Your task to perform on an android device: turn smart compose on in the gmail app Image 0: 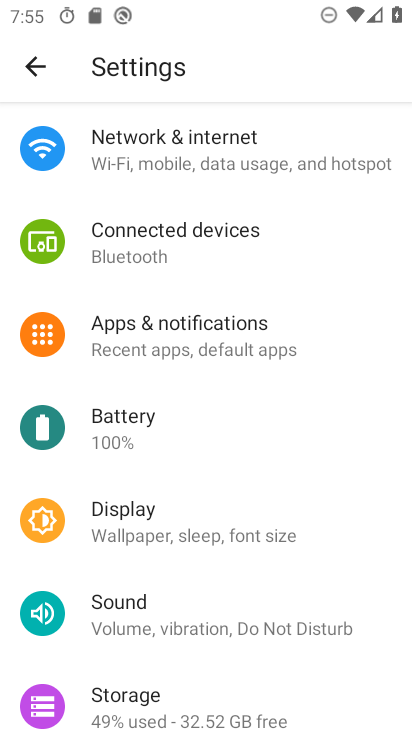
Step 0: press home button
Your task to perform on an android device: turn smart compose on in the gmail app Image 1: 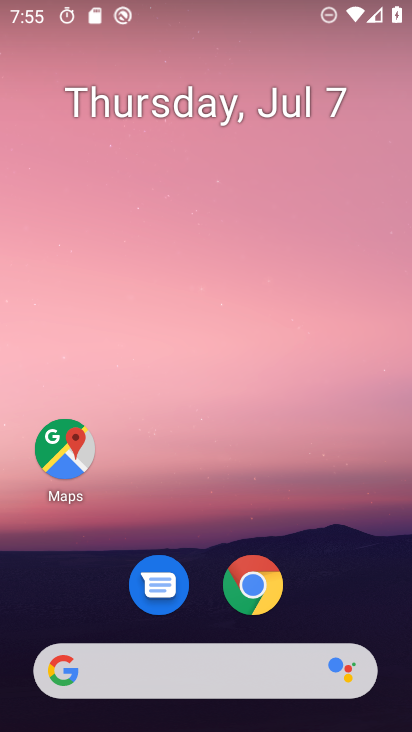
Step 1: drag from (207, 678) to (292, 182)
Your task to perform on an android device: turn smart compose on in the gmail app Image 2: 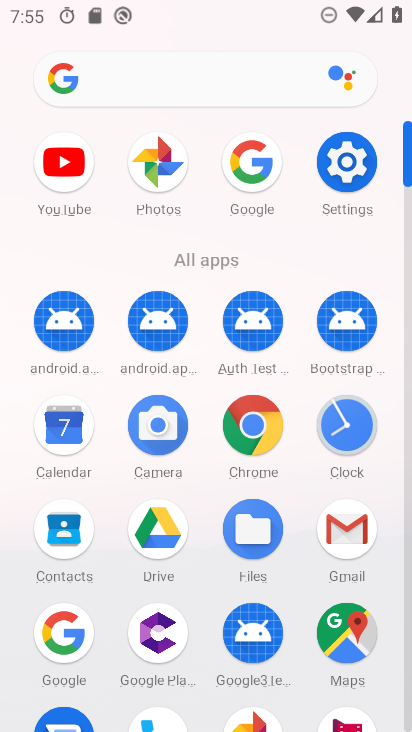
Step 2: click (347, 533)
Your task to perform on an android device: turn smart compose on in the gmail app Image 3: 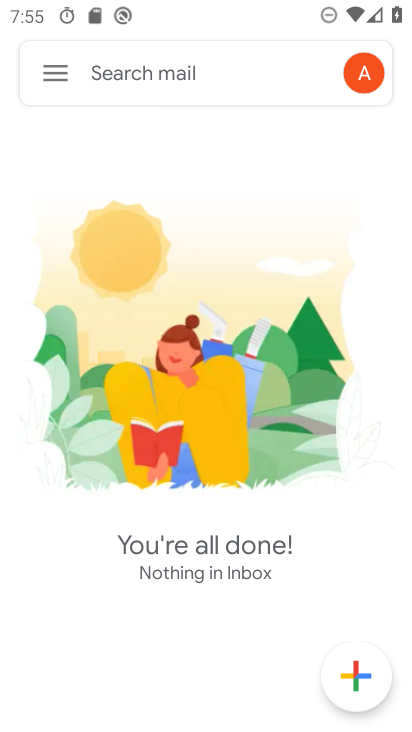
Step 3: click (55, 73)
Your task to perform on an android device: turn smart compose on in the gmail app Image 4: 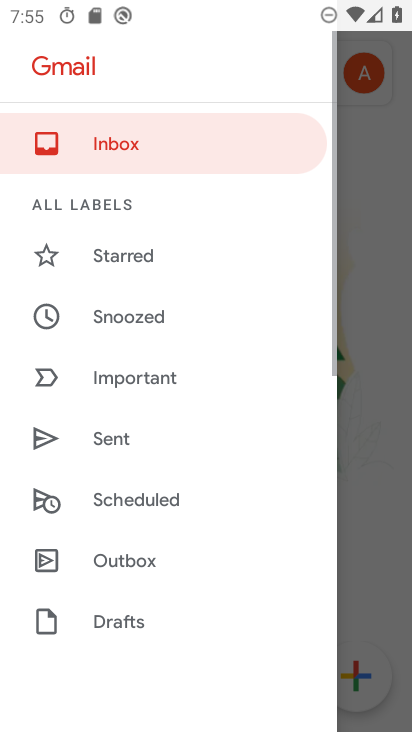
Step 4: drag from (163, 618) to (248, 111)
Your task to perform on an android device: turn smart compose on in the gmail app Image 5: 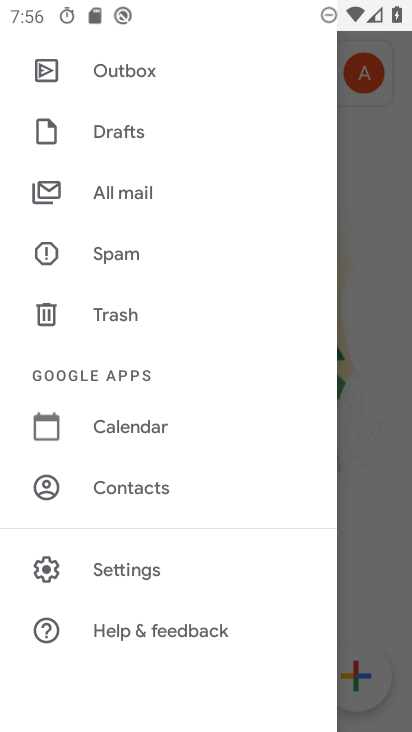
Step 5: click (144, 570)
Your task to perform on an android device: turn smart compose on in the gmail app Image 6: 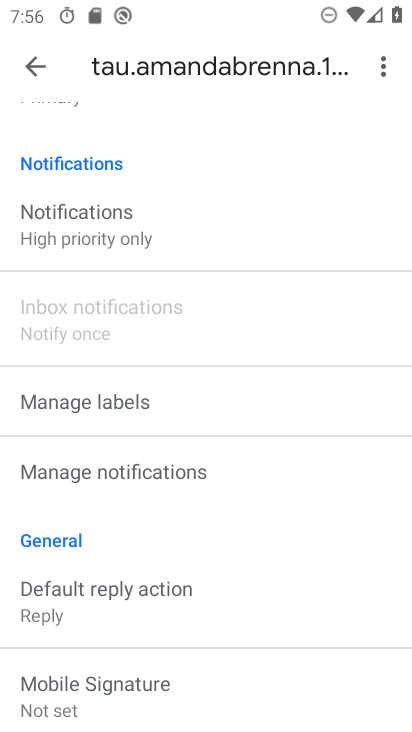
Step 6: drag from (226, 516) to (290, 289)
Your task to perform on an android device: turn smart compose on in the gmail app Image 7: 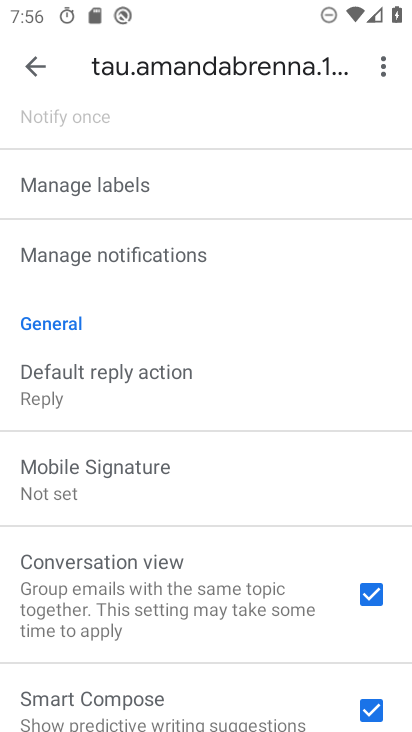
Step 7: drag from (194, 645) to (294, 284)
Your task to perform on an android device: turn smart compose on in the gmail app Image 8: 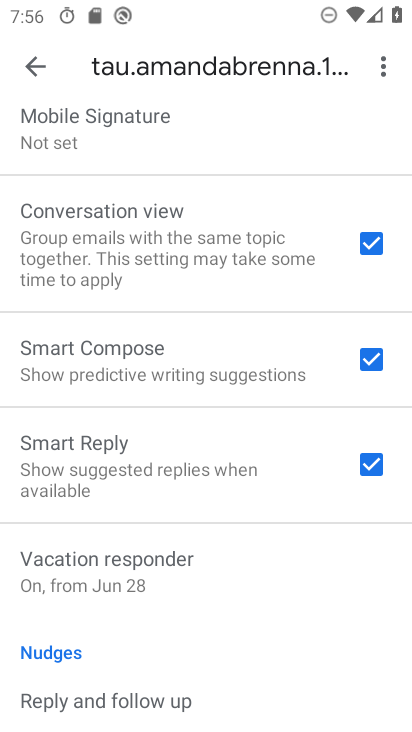
Step 8: click (377, 354)
Your task to perform on an android device: turn smart compose on in the gmail app Image 9: 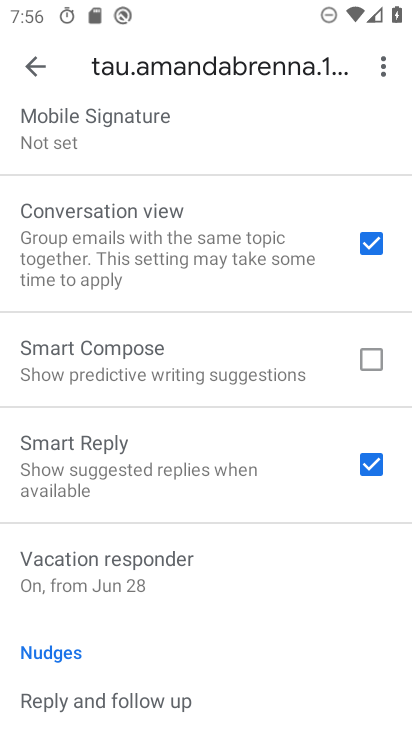
Step 9: click (374, 362)
Your task to perform on an android device: turn smart compose on in the gmail app Image 10: 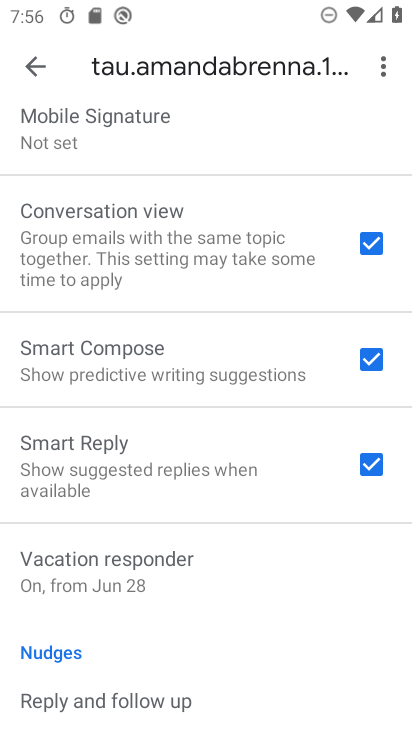
Step 10: task complete